Your task to perform on an android device: refresh tabs in the chrome app Image 0: 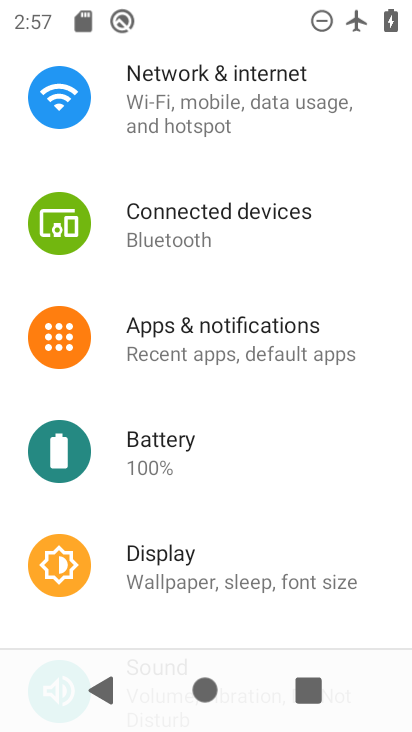
Step 0: press home button
Your task to perform on an android device: refresh tabs in the chrome app Image 1: 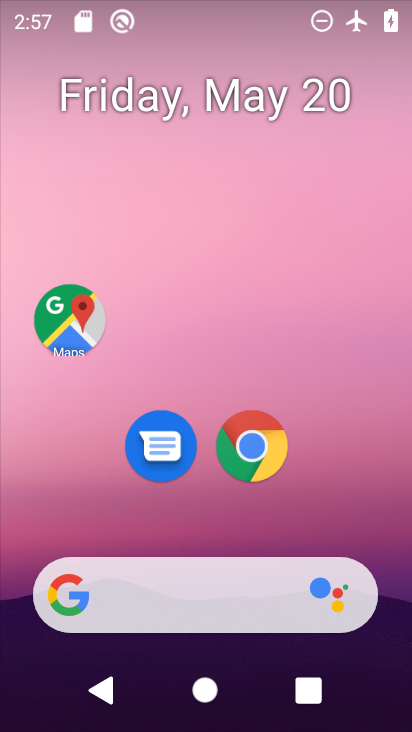
Step 1: click (249, 461)
Your task to perform on an android device: refresh tabs in the chrome app Image 2: 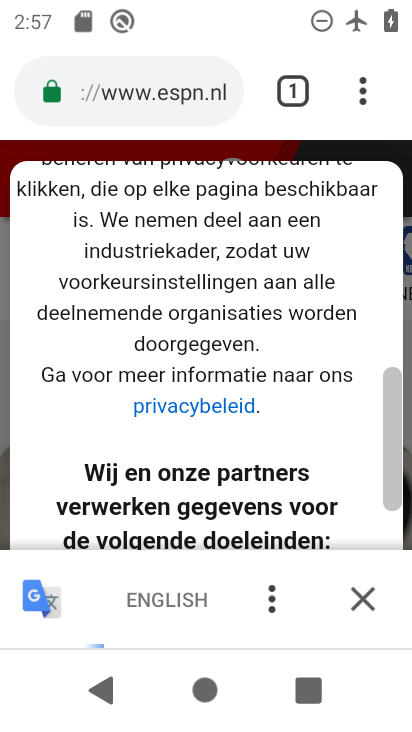
Step 2: click (366, 91)
Your task to perform on an android device: refresh tabs in the chrome app Image 3: 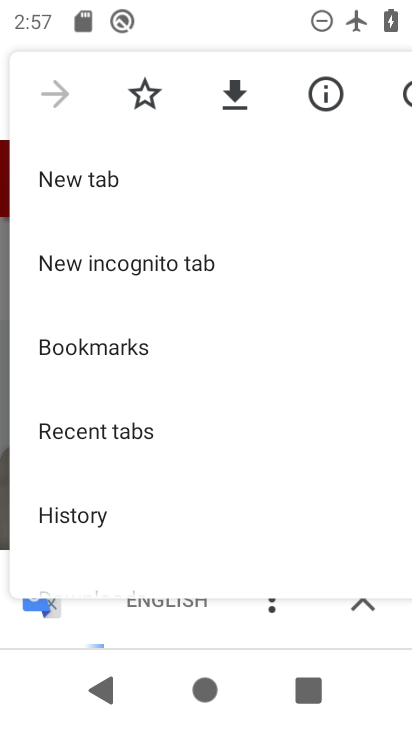
Step 3: click (408, 94)
Your task to perform on an android device: refresh tabs in the chrome app Image 4: 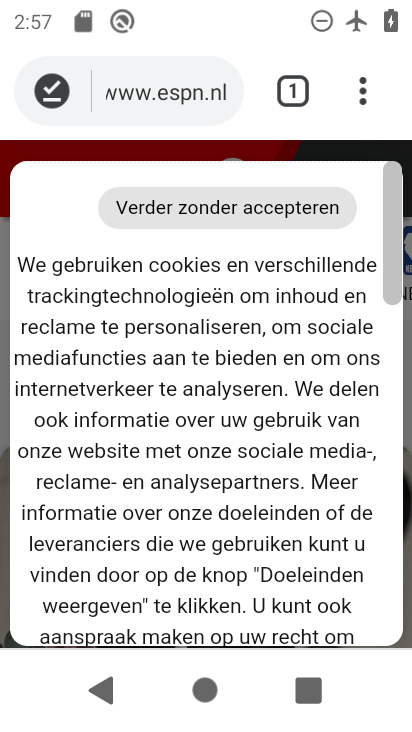
Step 4: task complete